Your task to perform on an android device: install app "Roku - Official Remote Control" Image 0: 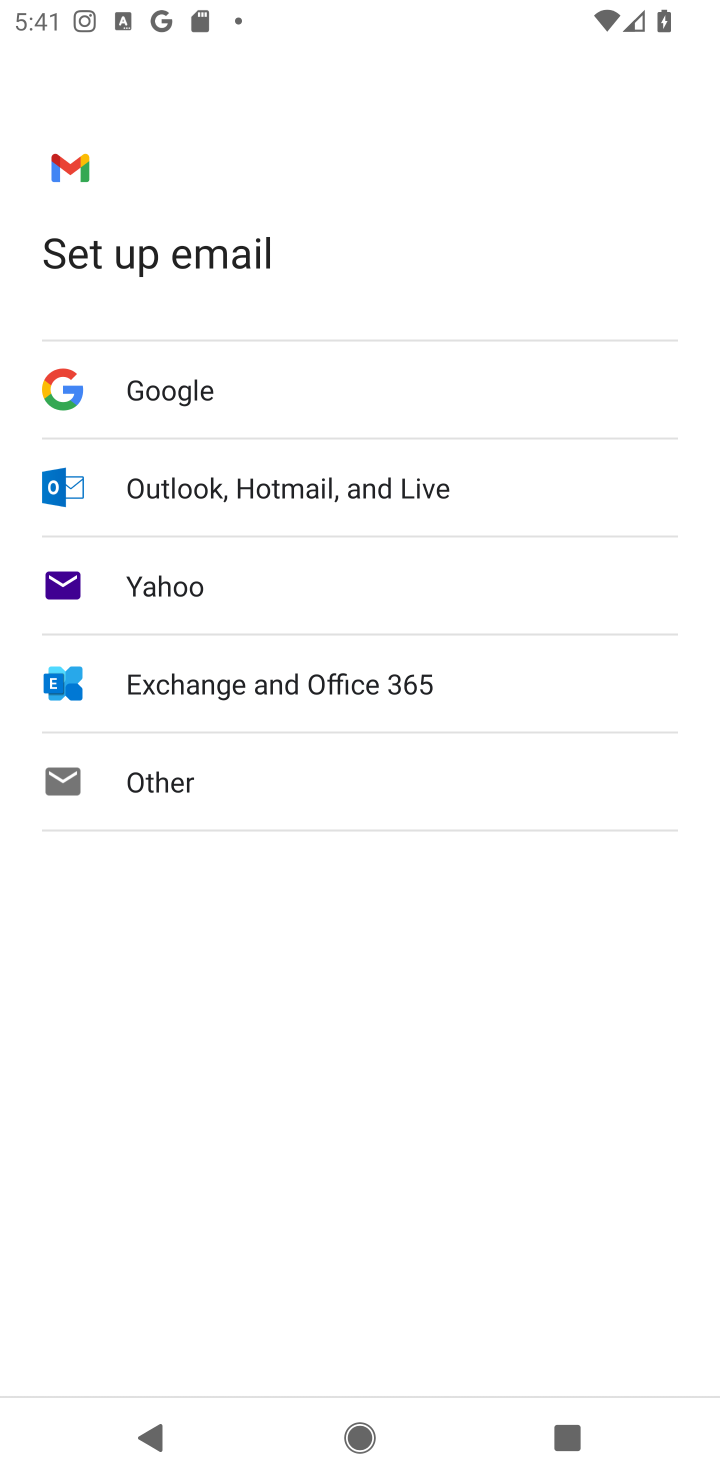
Step 0: press home button
Your task to perform on an android device: install app "Roku - Official Remote Control" Image 1: 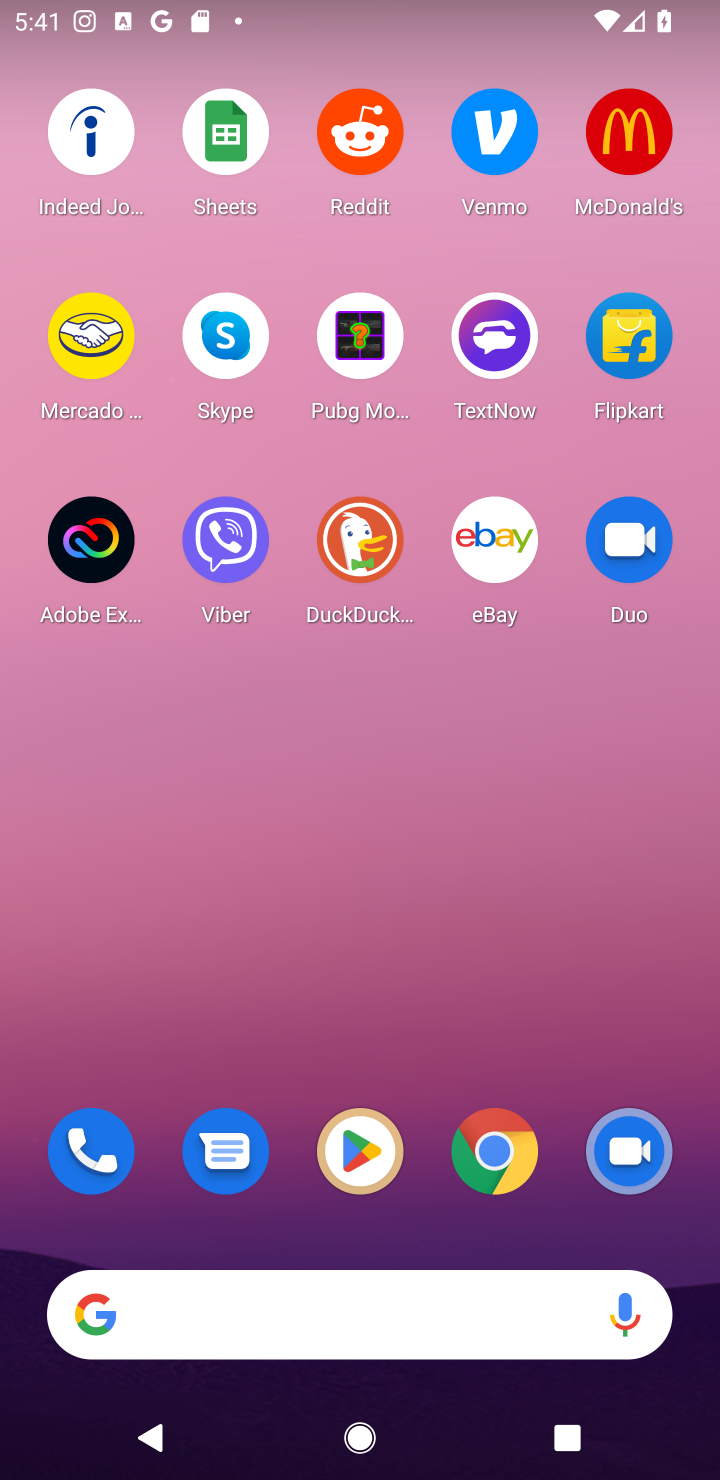
Step 1: press home button
Your task to perform on an android device: install app "Roku - Official Remote Control" Image 2: 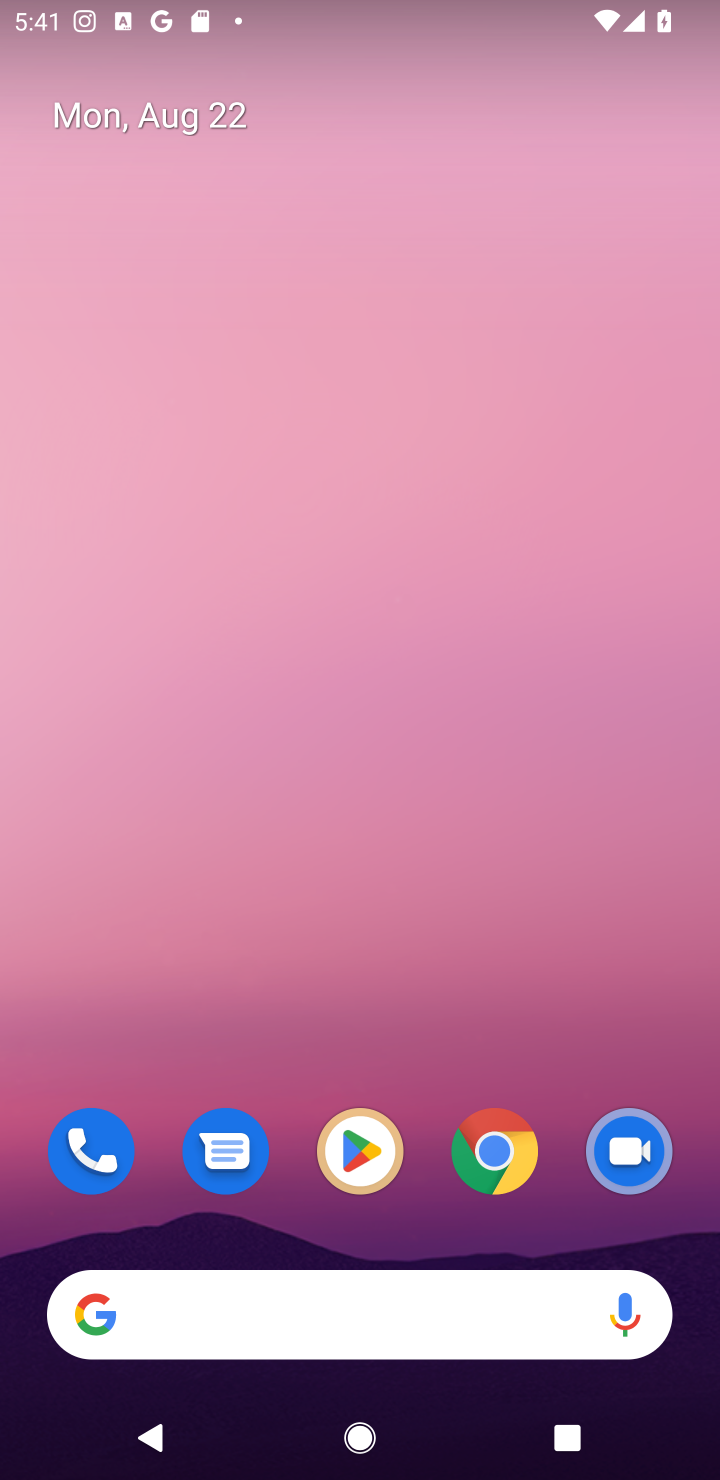
Step 2: click (355, 1145)
Your task to perform on an android device: install app "Roku - Official Remote Control" Image 3: 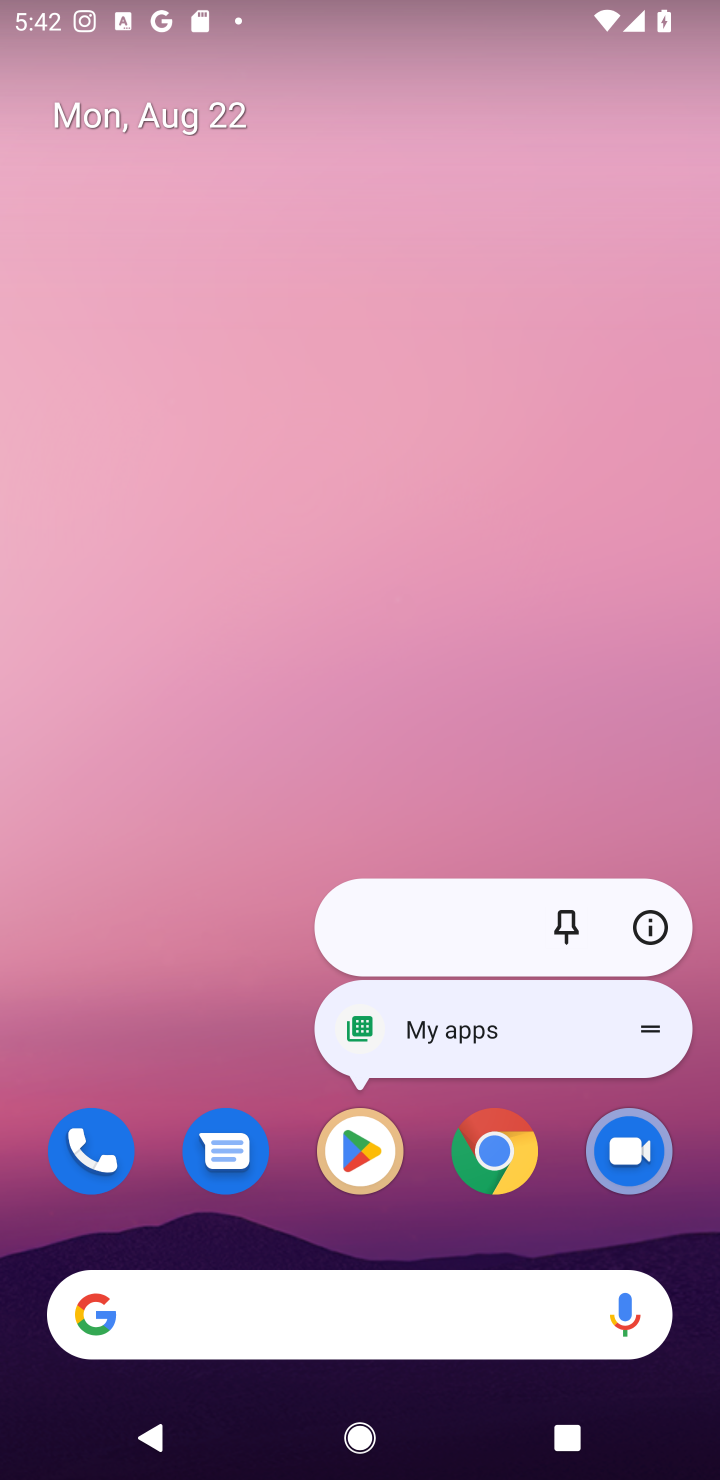
Step 3: click (355, 1149)
Your task to perform on an android device: install app "Roku - Official Remote Control" Image 4: 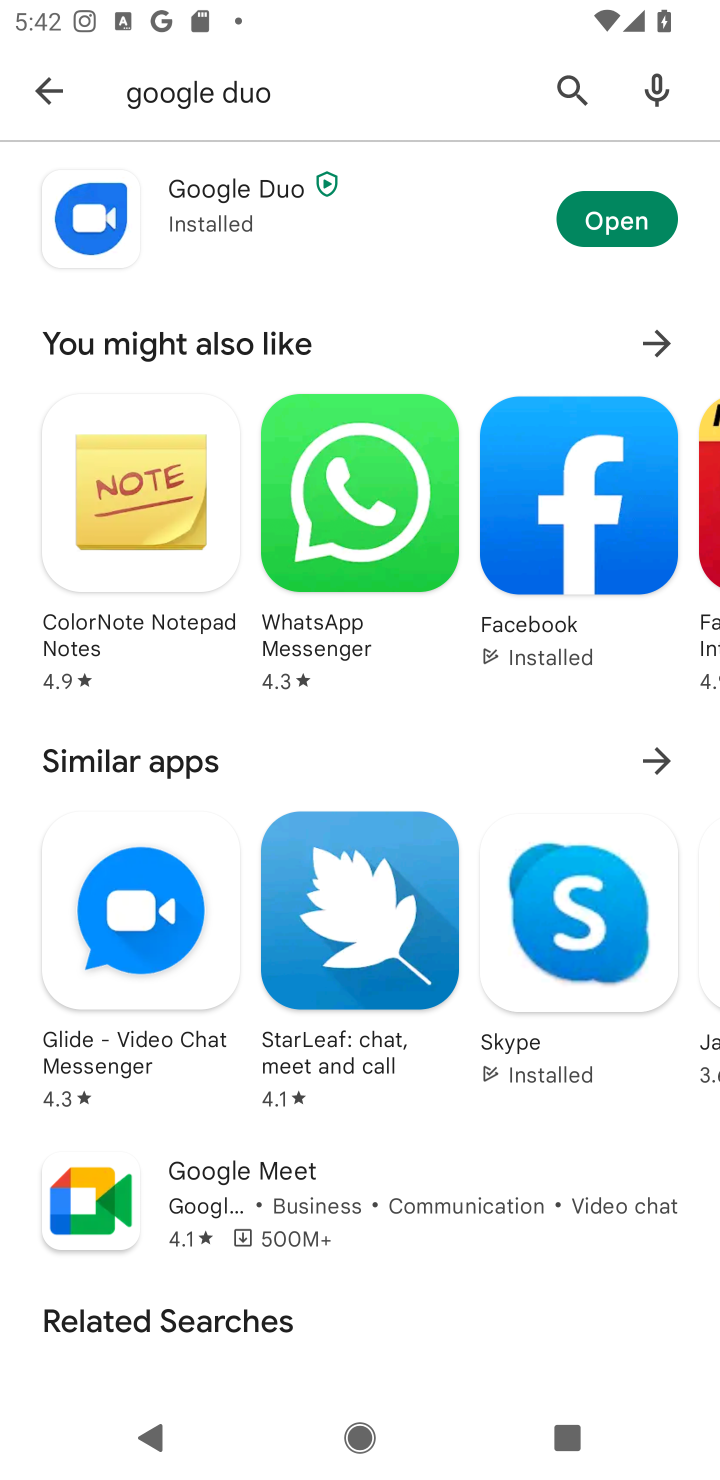
Step 4: click (570, 84)
Your task to perform on an android device: install app "Roku - Official Remote Control" Image 5: 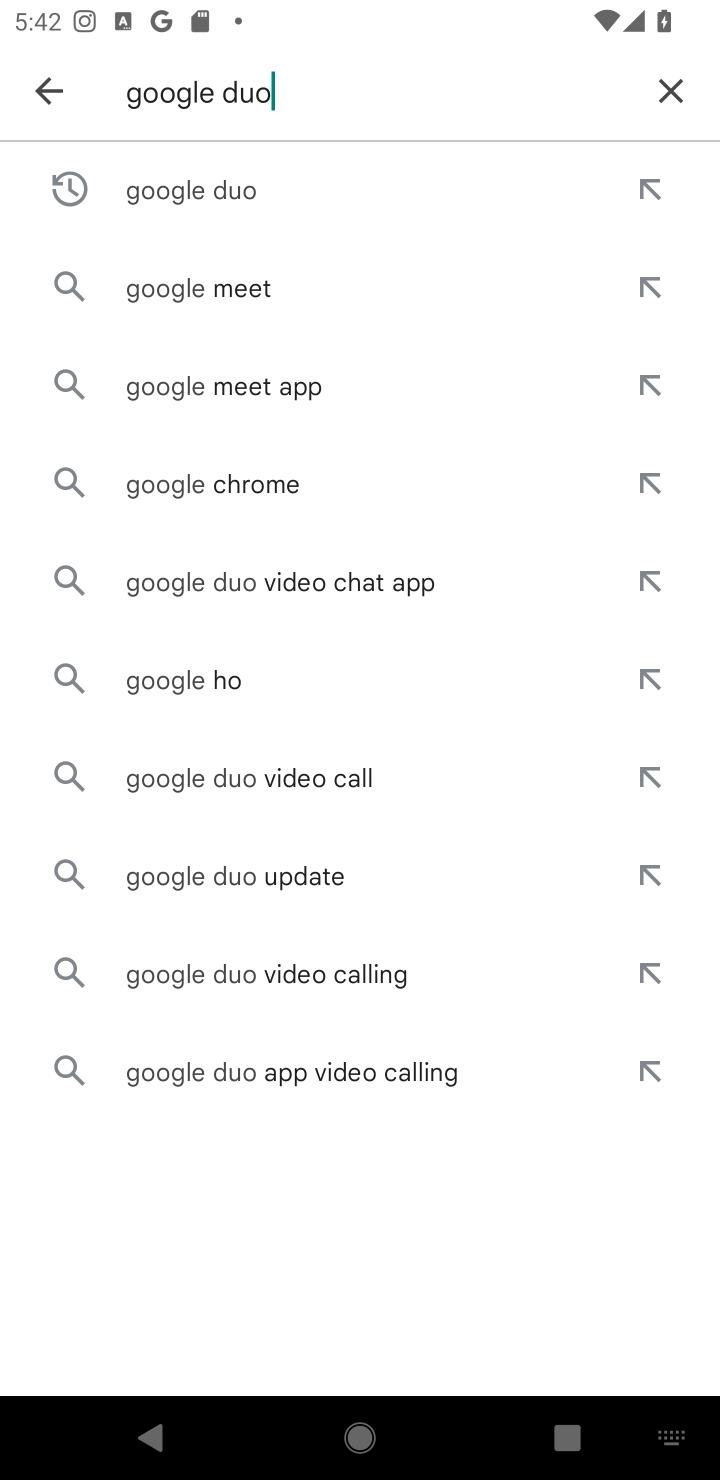
Step 5: click (659, 84)
Your task to perform on an android device: install app "Roku - Official Remote Control" Image 6: 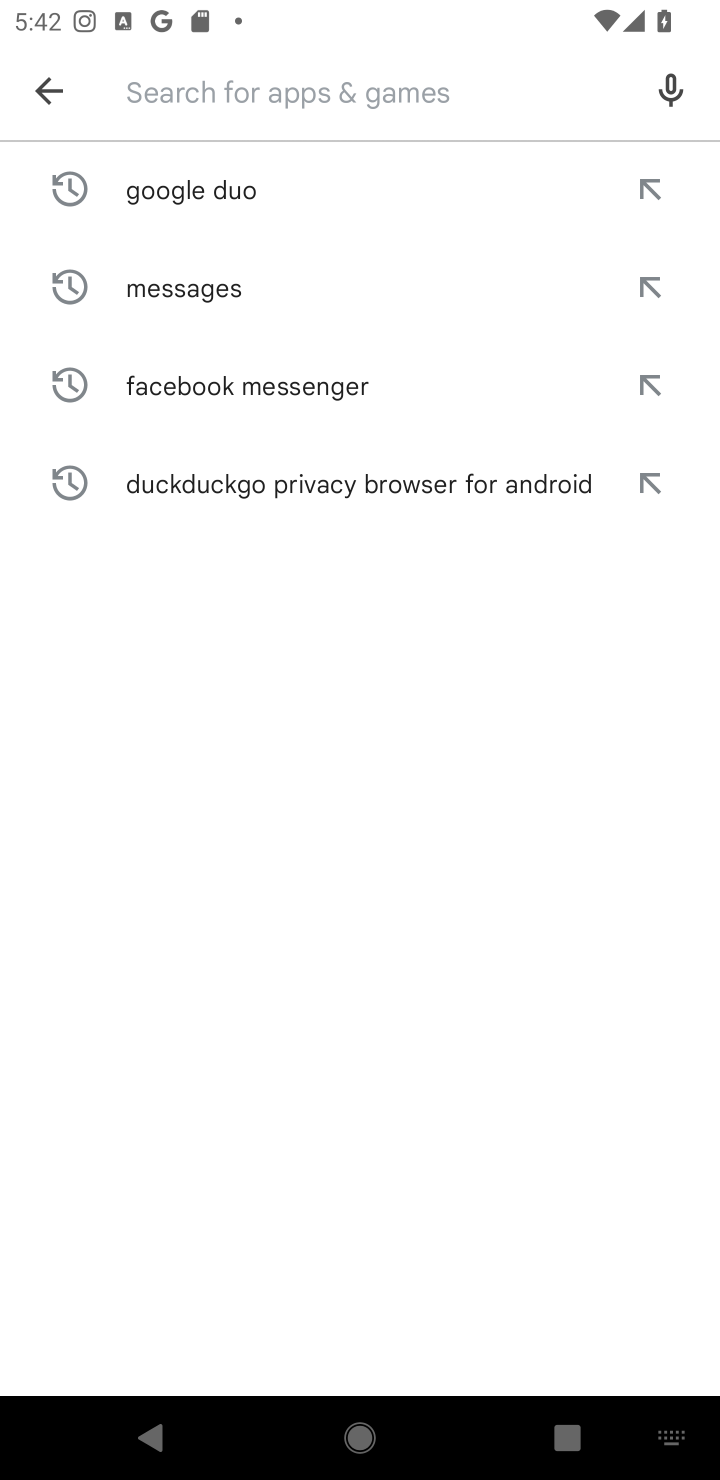
Step 6: type "Roku - Official Remote Control"
Your task to perform on an android device: install app "Roku - Official Remote Control" Image 7: 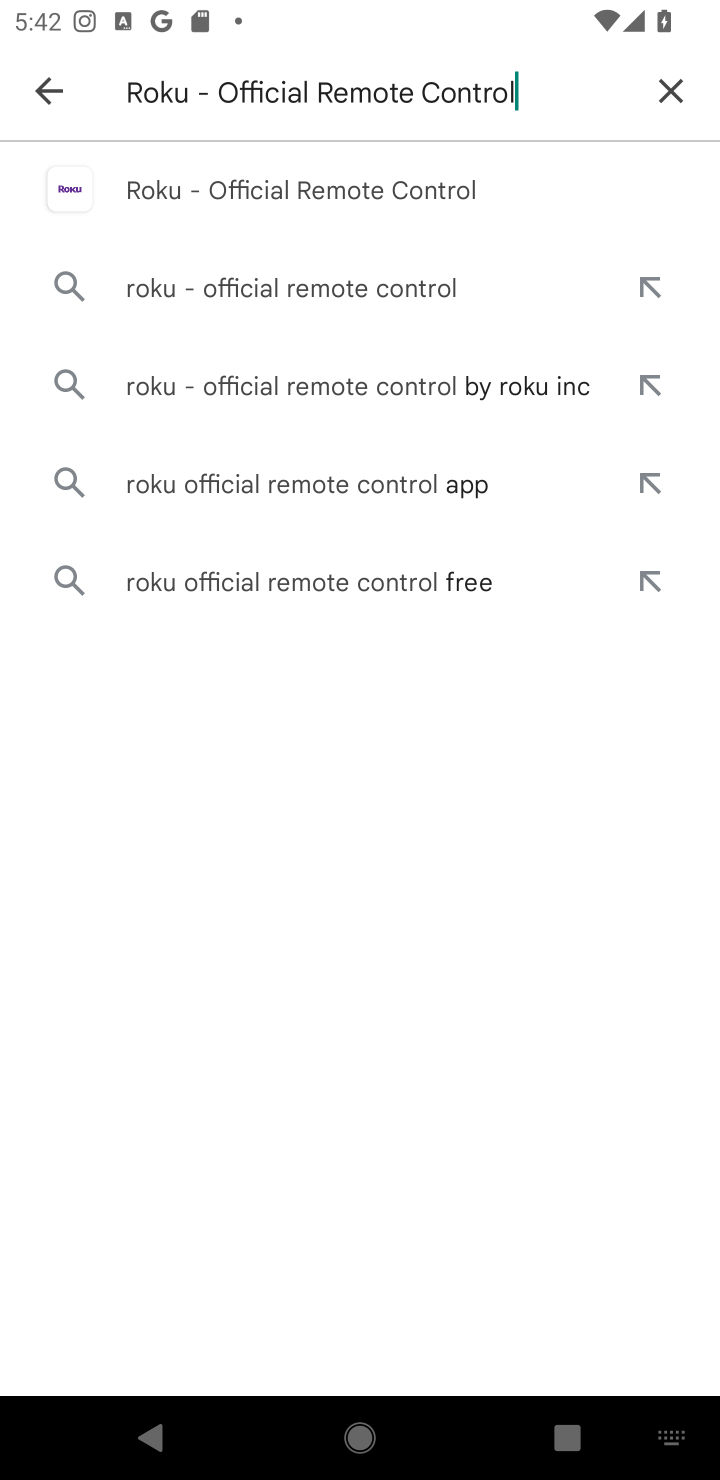
Step 7: click (392, 193)
Your task to perform on an android device: install app "Roku - Official Remote Control" Image 8: 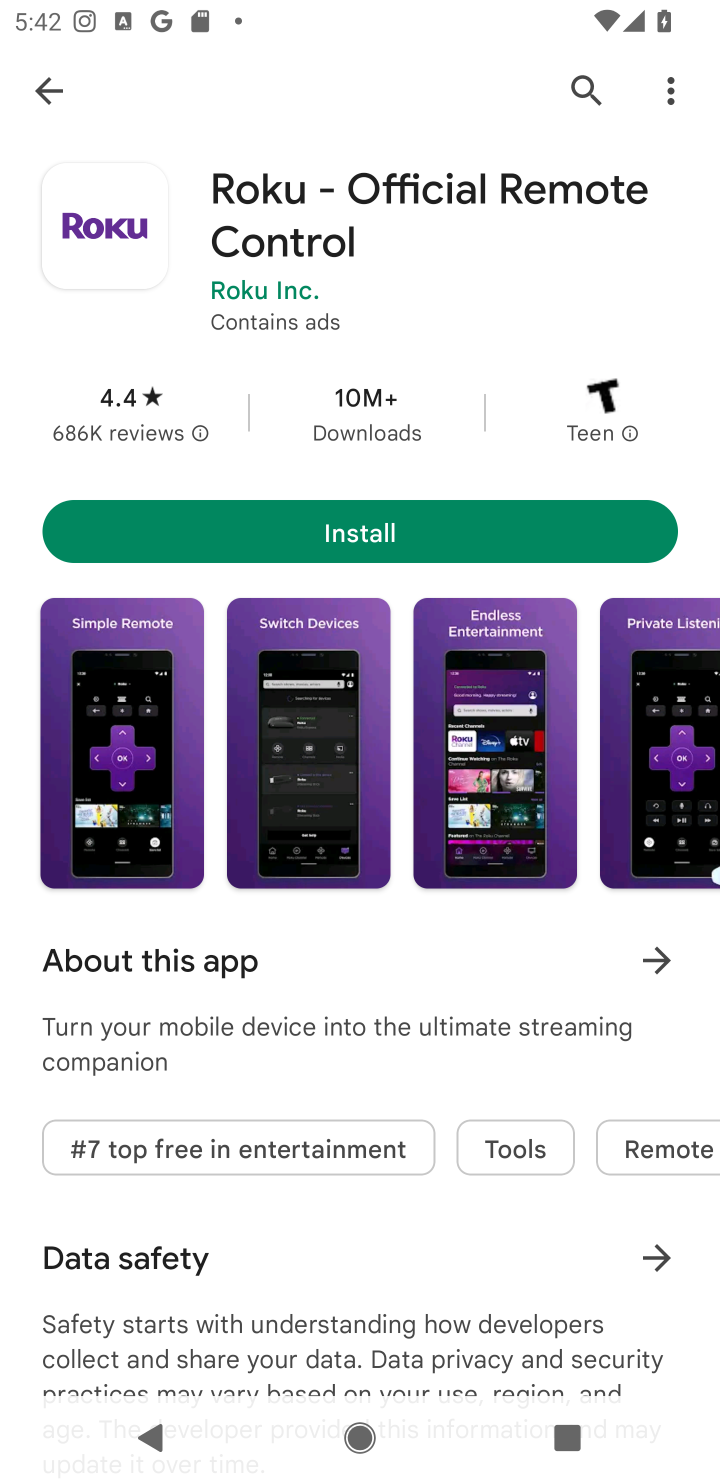
Step 8: click (367, 534)
Your task to perform on an android device: install app "Roku - Official Remote Control" Image 9: 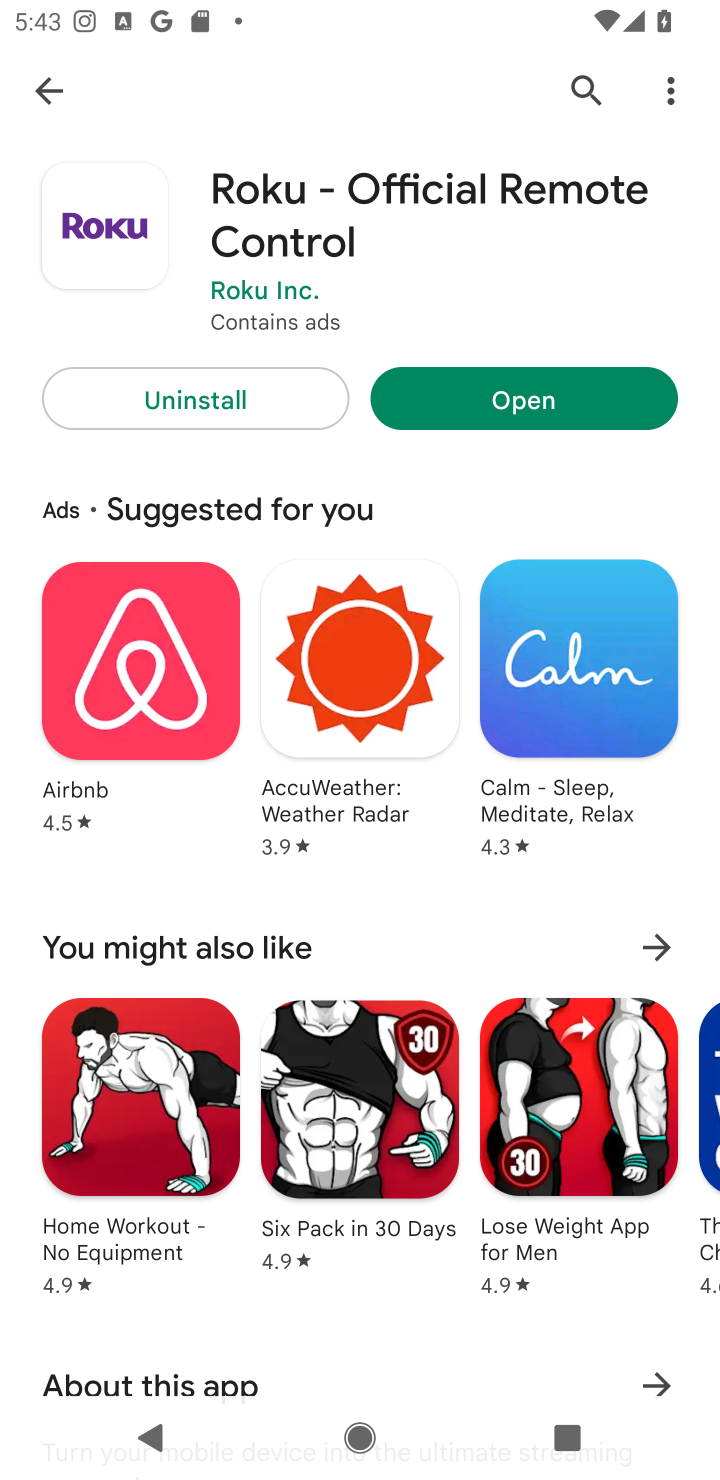
Step 9: task complete